Your task to perform on an android device: turn on improve location accuracy Image 0: 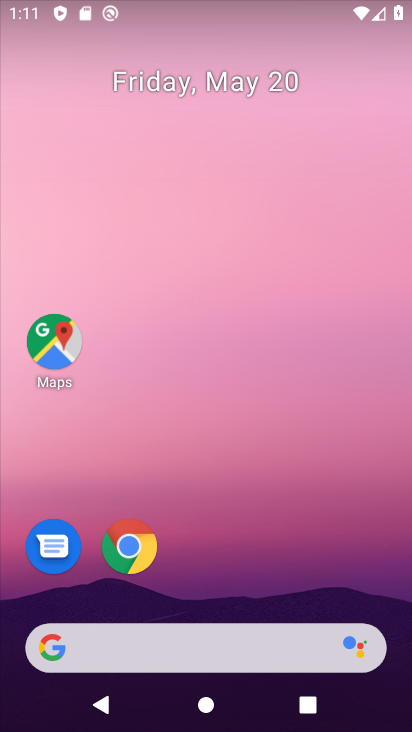
Step 0: press home button
Your task to perform on an android device: turn on improve location accuracy Image 1: 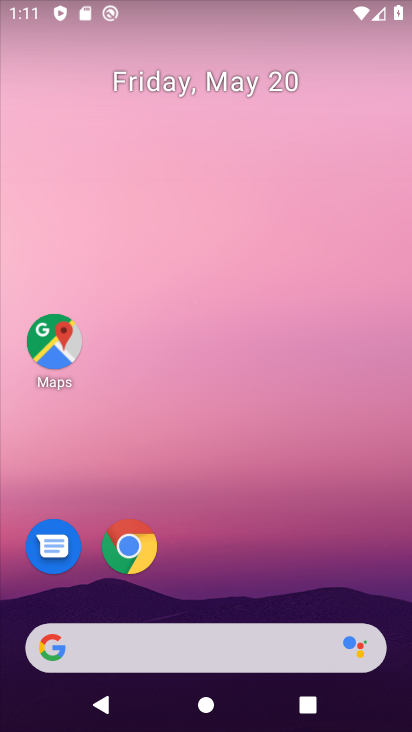
Step 1: drag from (49, 537) to (224, 89)
Your task to perform on an android device: turn on improve location accuracy Image 2: 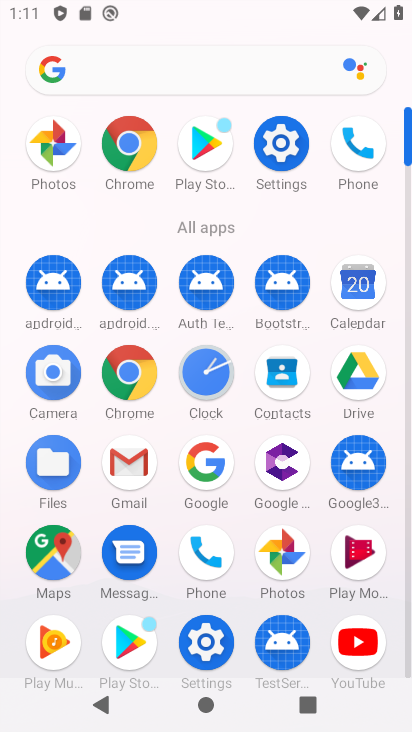
Step 2: click (134, 157)
Your task to perform on an android device: turn on improve location accuracy Image 3: 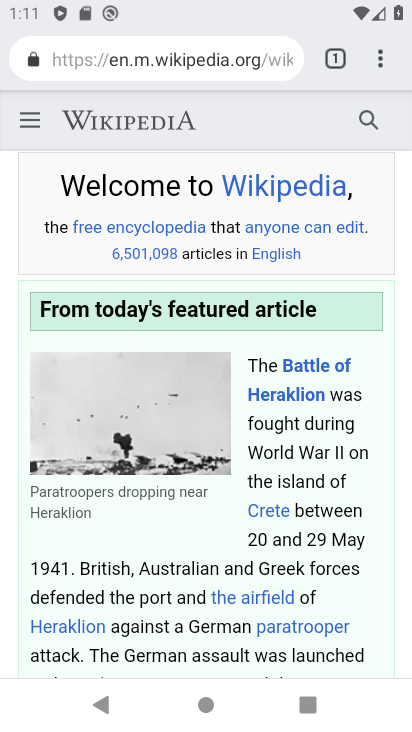
Step 3: click (380, 64)
Your task to perform on an android device: turn on improve location accuracy Image 4: 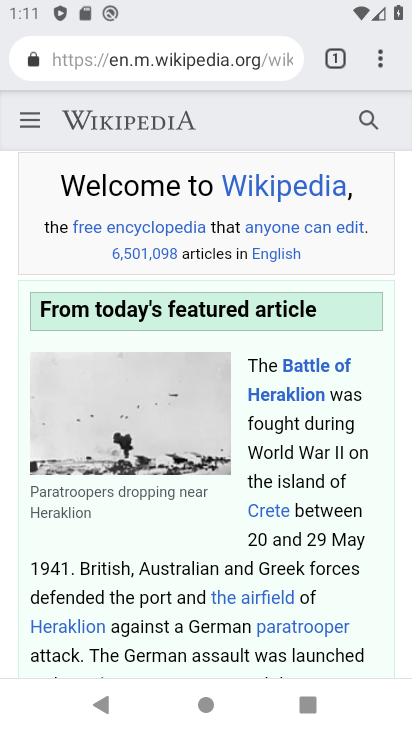
Step 4: click (383, 64)
Your task to perform on an android device: turn on improve location accuracy Image 5: 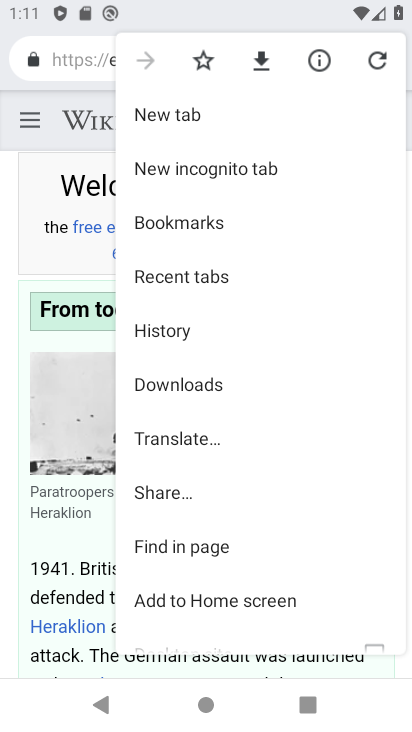
Step 5: press home button
Your task to perform on an android device: turn on improve location accuracy Image 6: 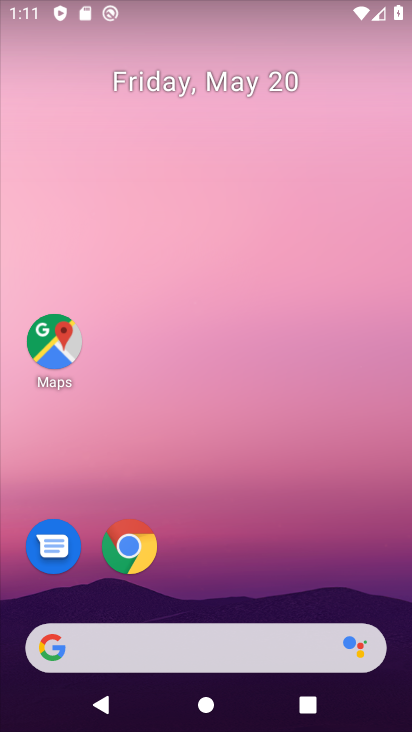
Step 6: click (138, 540)
Your task to perform on an android device: turn on improve location accuracy Image 7: 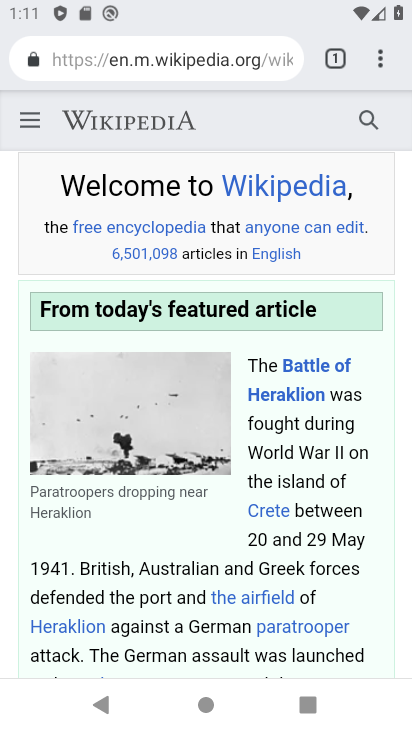
Step 7: click (373, 67)
Your task to perform on an android device: turn on improve location accuracy Image 8: 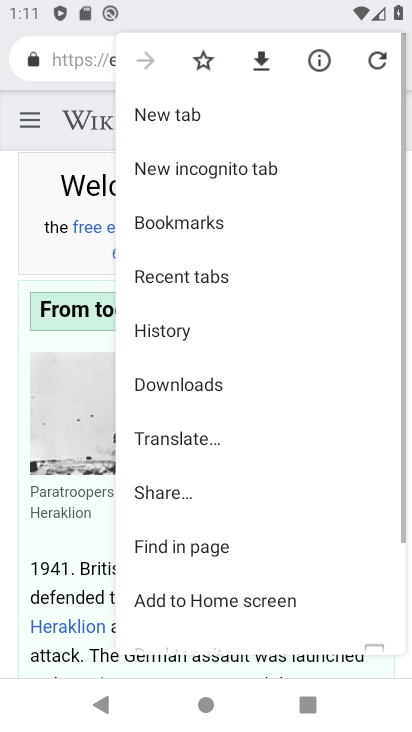
Step 8: drag from (132, 574) to (289, 120)
Your task to perform on an android device: turn on improve location accuracy Image 9: 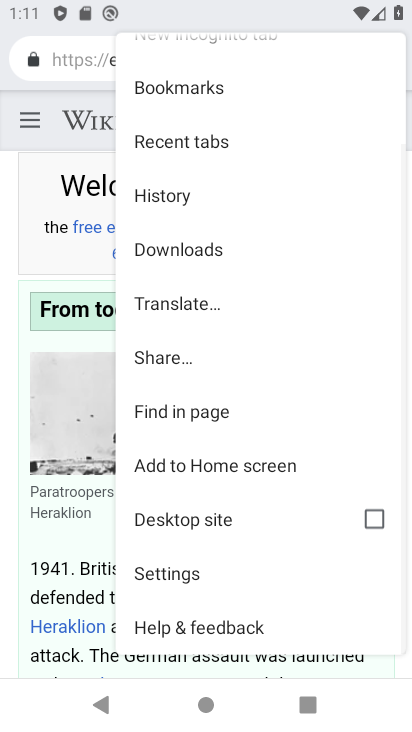
Step 9: click (202, 571)
Your task to perform on an android device: turn on improve location accuracy Image 10: 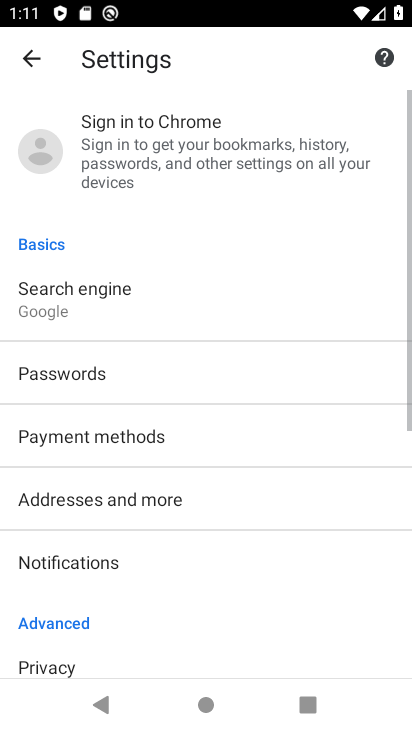
Step 10: drag from (6, 652) to (187, 249)
Your task to perform on an android device: turn on improve location accuracy Image 11: 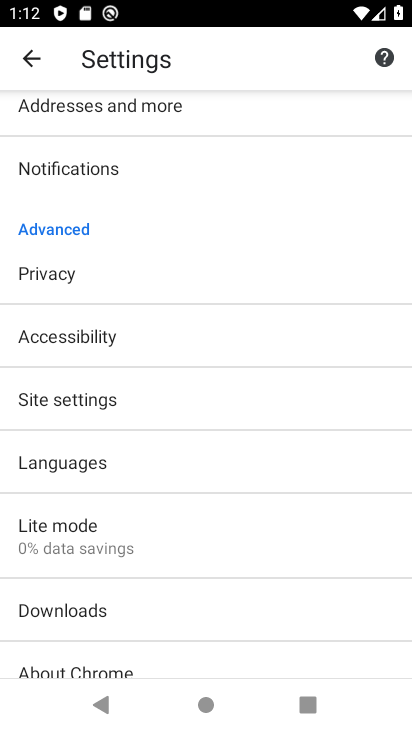
Step 11: drag from (9, 650) to (126, 280)
Your task to perform on an android device: turn on improve location accuracy Image 12: 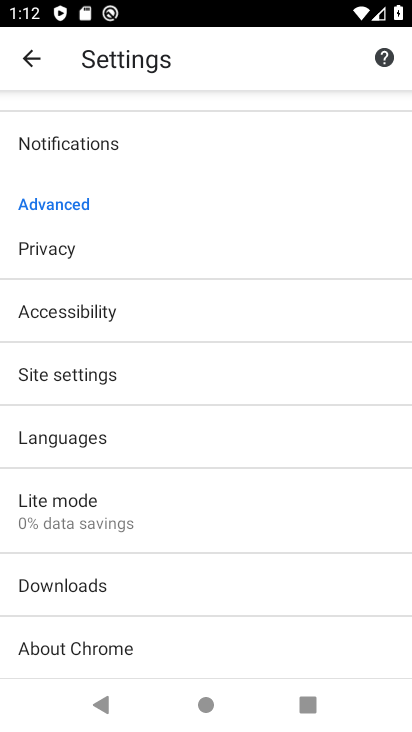
Step 12: drag from (165, 235) to (165, 595)
Your task to perform on an android device: turn on improve location accuracy Image 13: 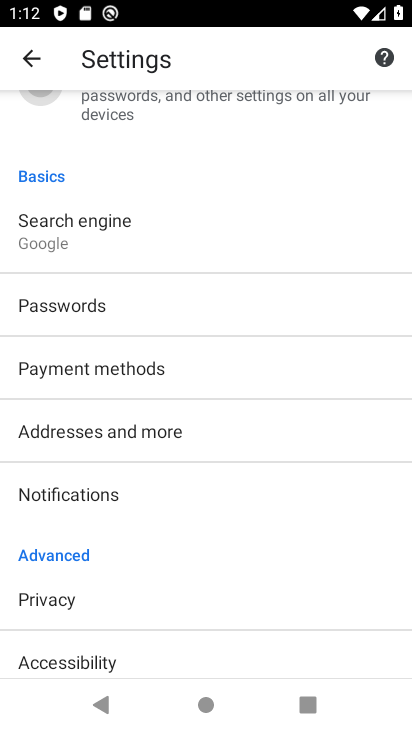
Step 13: press back button
Your task to perform on an android device: turn on improve location accuracy Image 14: 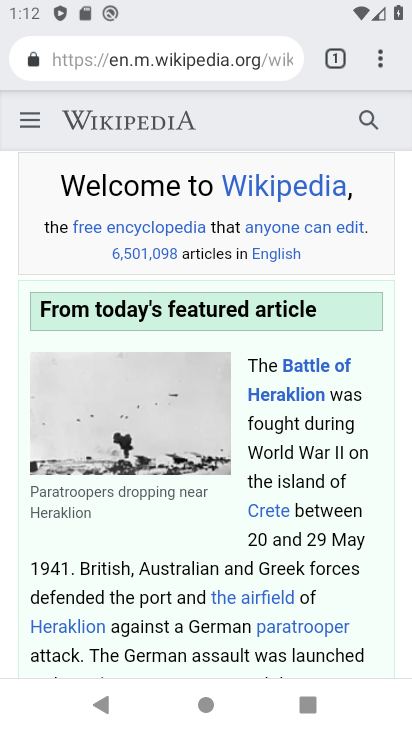
Step 14: click (388, 58)
Your task to perform on an android device: turn on improve location accuracy Image 15: 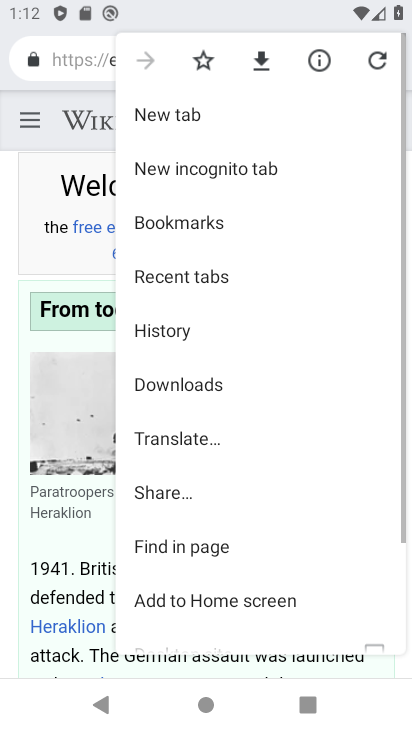
Step 15: drag from (135, 563) to (298, 160)
Your task to perform on an android device: turn on improve location accuracy Image 16: 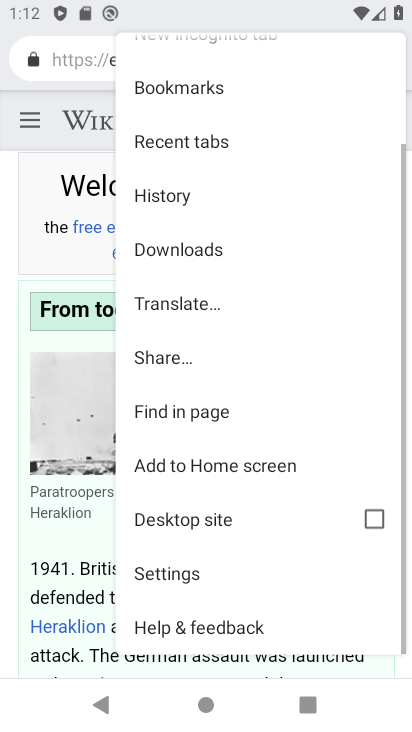
Step 16: click (149, 555)
Your task to perform on an android device: turn on improve location accuracy Image 17: 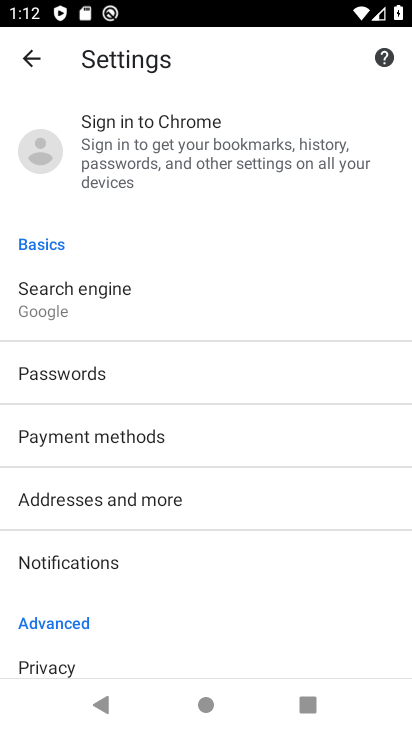
Step 17: drag from (58, 636) to (278, 261)
Your task to perform on an android device: turn on improve location accuracy Image 18: 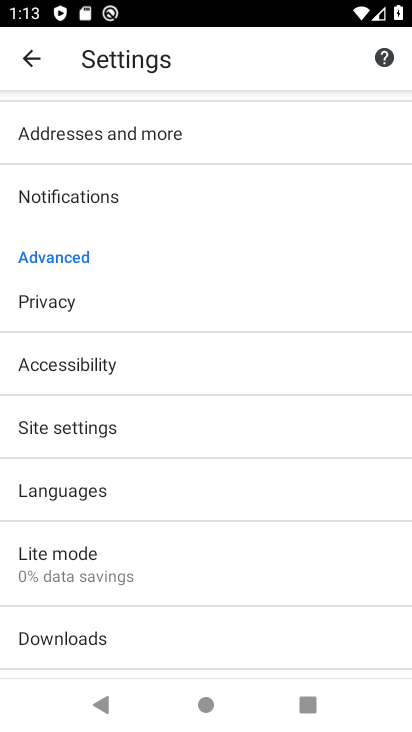
Step 18: click (76, 432)
Your task to perform on an android device: turn on improve location accuracy Image 19: 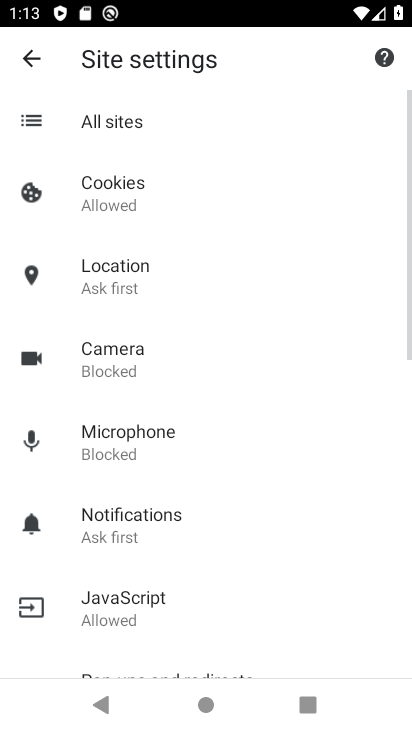
Step 19: click (120, 281)
Your task to perform on an android device: turn on improve location accuracy Image 20: 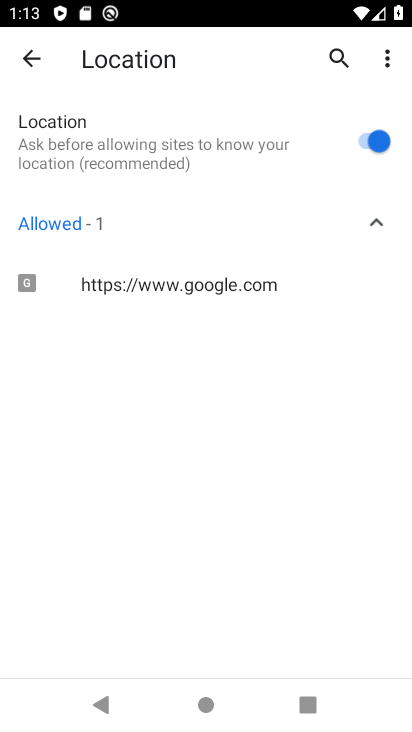
Step 20: task complete